Your task to perform on an android device: Open the calendar app, open the side menu, and click the "Day" option Image 0: 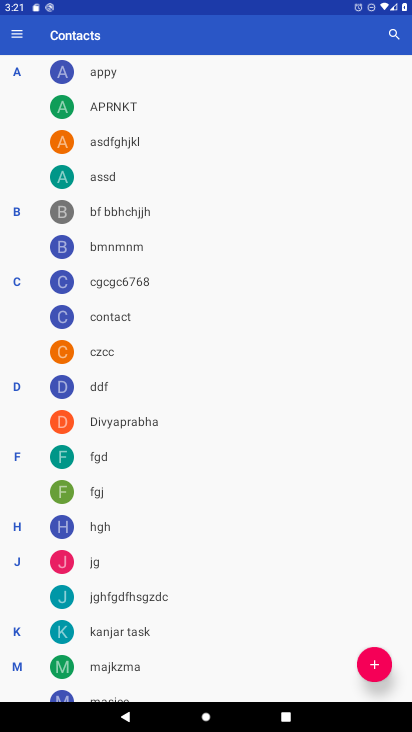
Step 0: press home button
Your task to perform on an android device: Open the calendar app, open the side menu, and click the "Day" option Image 1: 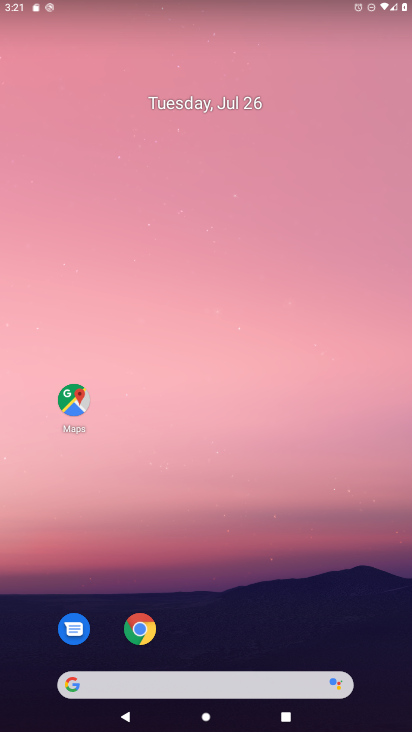
Step 1: drag from (223, 636) to (211, 190)
Your task to perform on an android device: Open the calendar app, open the side menu, and click the "Day" option Image 2: 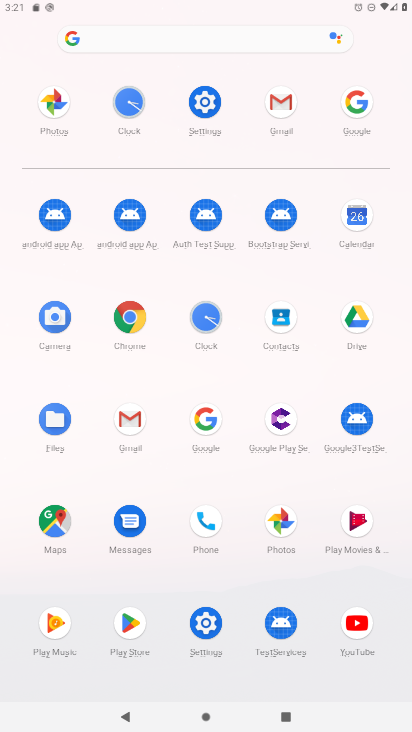
Step 2: click (371, 221)
Your task to perform on an android device: Open the calendar app, open the side menu, and click the "Day" option Image 3: 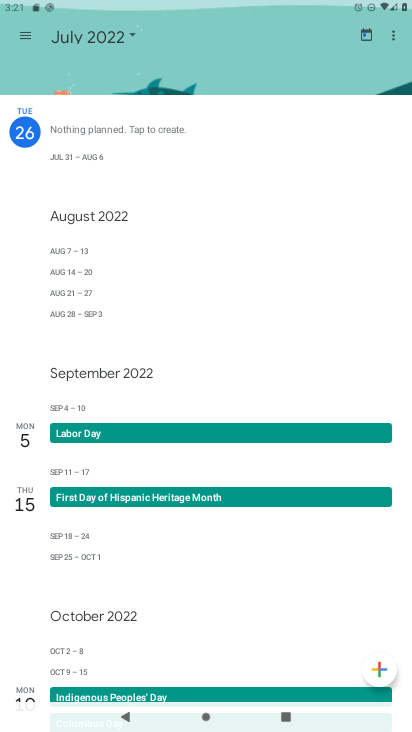
Step 3: click (27, 39)
Your task to perform on an android device: Open the calendar app, open the side menu, and click the "Day" option Image 4: 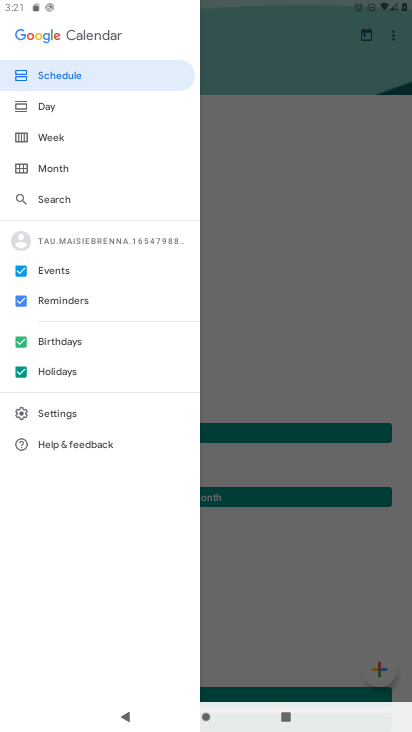
Step 4: click (90, 112)
Your task to perform on an android device: Open the calendar app, open the side menu, and click the "Day" option Image 5: 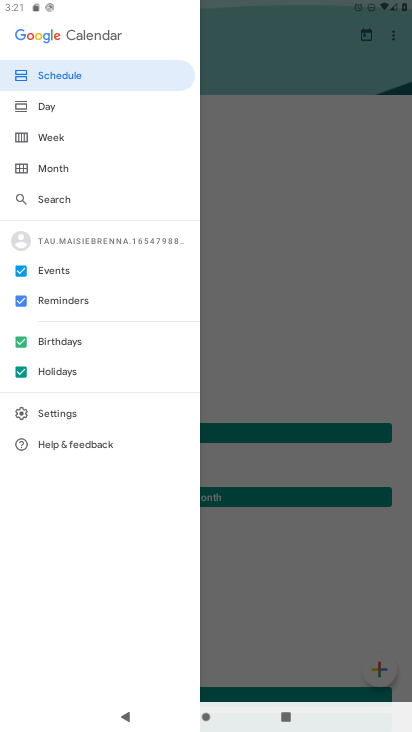
Step 5: click (64, 111)
Your task to perform on an android device: Open the calendar app, open the side menu, and click the "Day" option Image 6: 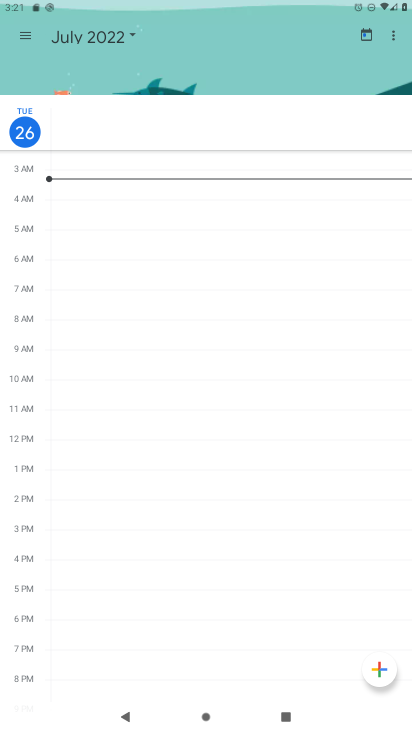
Step 6: task complete